Your task to perform on an android device: toggle notifications settings in the gmail app Image 0: 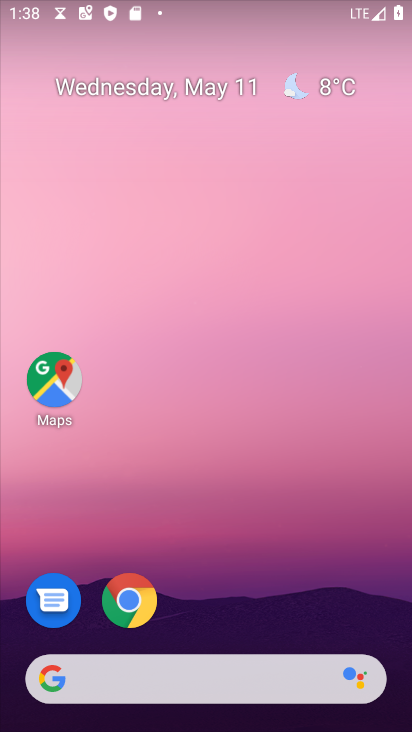
Step 0: drag from (250, 557) to (233, 92)
Your task to perform on an android device: toggle notifications settings in the gmail app Image 1: 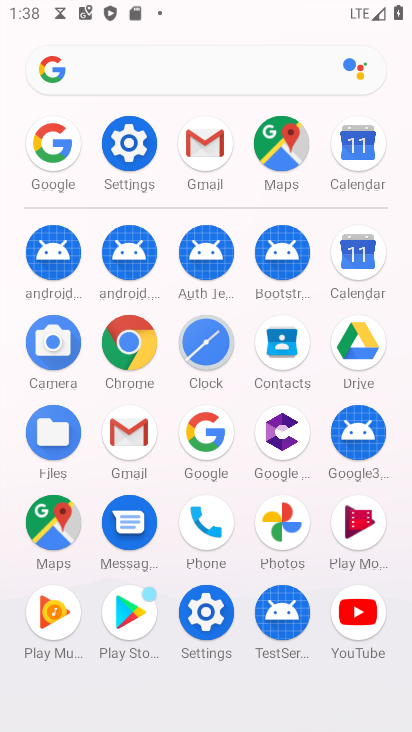
Step 1: click (129, 443)
Your task to perform on an android device: toggle notifications settings in the gmail app Image 2: 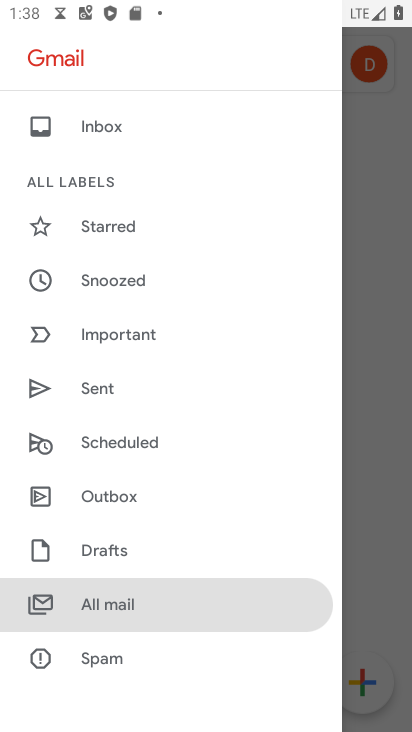
Step 2: drag from (122, 608) to (147, 250)
Your task to perform on an android device: toggle notifications settings in the gmail app Image 3: 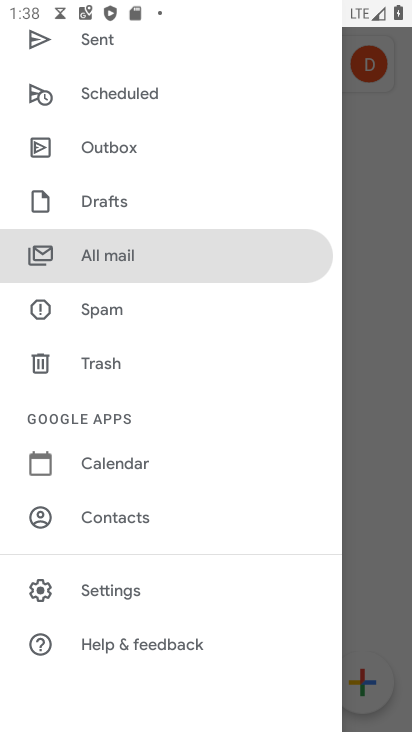
Step 3: click (107, 590)
Your task to perform on an android device: toggle notifications settings in the gmail app Image 4: 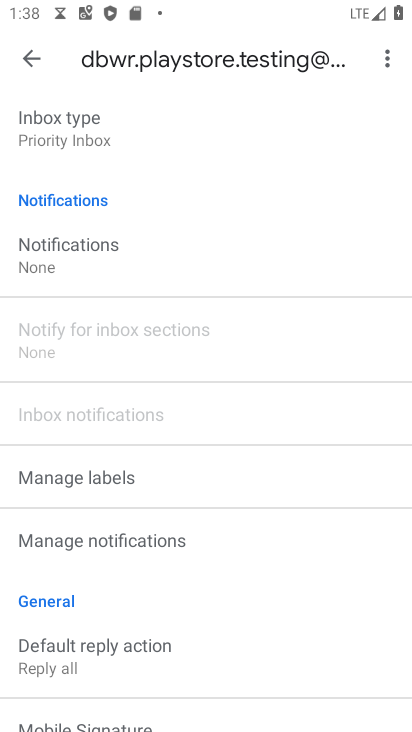
Step 4: drag from (183, 623) to (233, 228)
Your task to perform on an android device: toggle notifications settings in the gmail app Image 5: 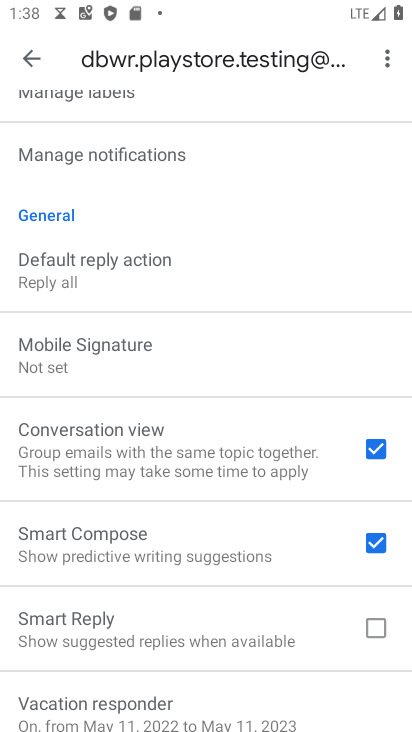
Step 5: click (154, 159)
Your task to perform on an android device: toggle notifications settings in the gmail app Image 6: 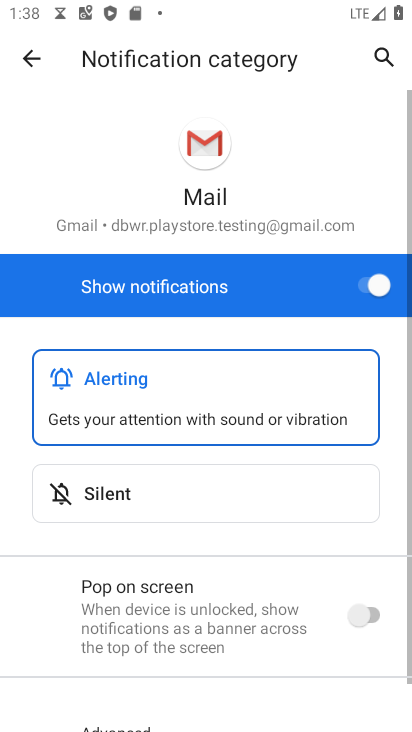
Step 6: click (379, 293)
Your task to perform on an android device: toggle notifications settings in the gmail app Image 7: 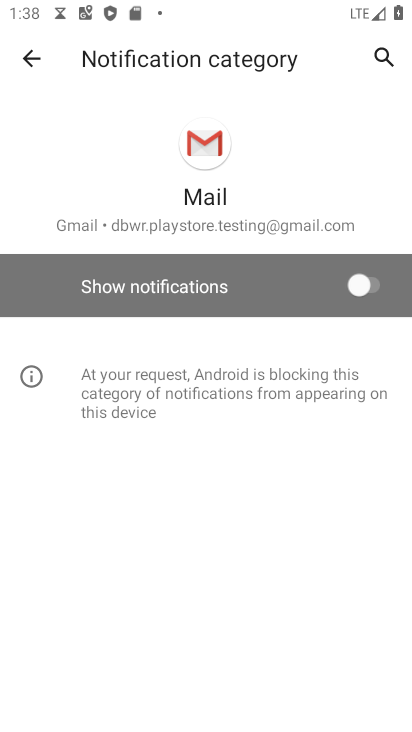
Step 7: task complete